Your task to perform on an android device: Open accessibility settings Image 0: 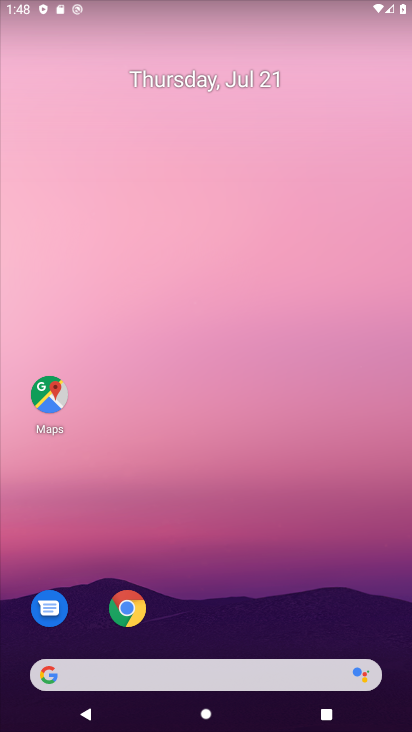
Step 0: drag from (260, 548) to (173, 13)
Your task to perform on an android device: Open accessibility settings Image 1: 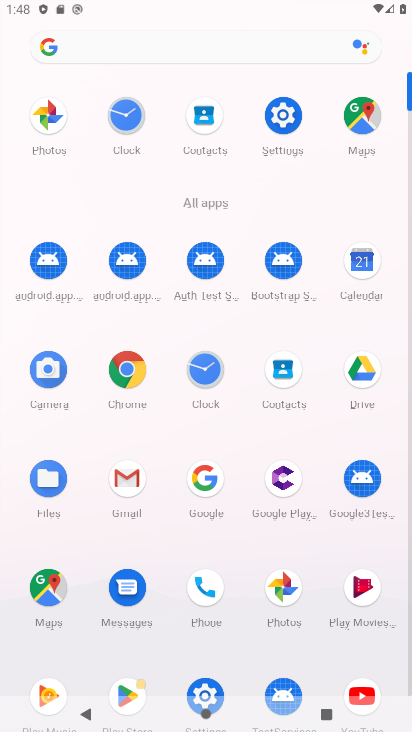
Step 1: click (282, 124)
Your task to perform on an android device: Open accessibility settings Image 2: 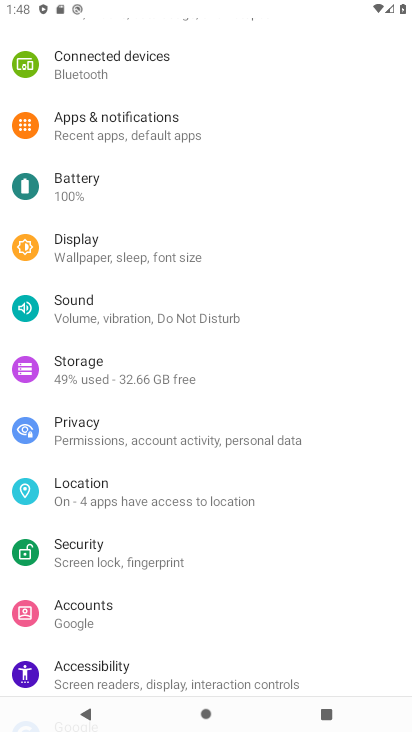
Step 2: click (98, 676)
Your task to perform on an android device: Open accessibility settings Image 3: 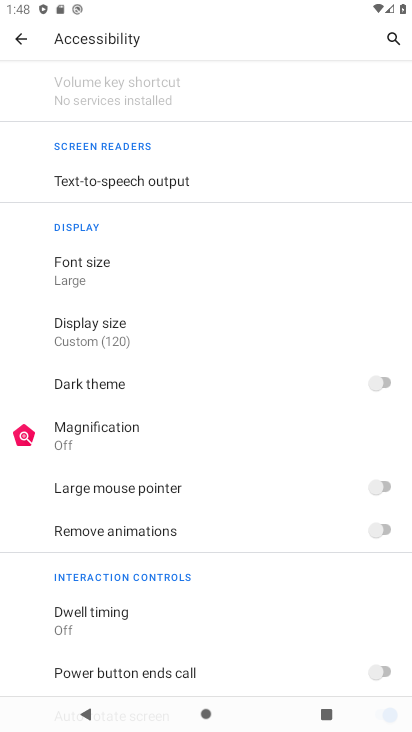
Step 3: task complete